Your task to perform on an android device: make emails show in primary in the gmail app Image 0: 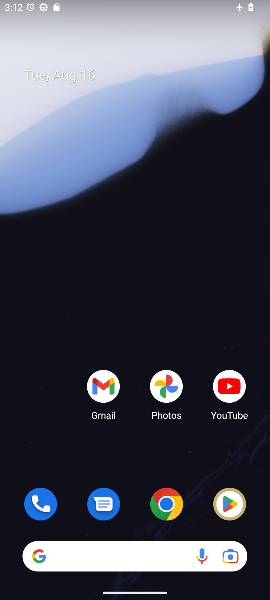
Step 0: click (101, 386)
Your task to perform on an android device: make emails show in primary in the gmail app Image 1: 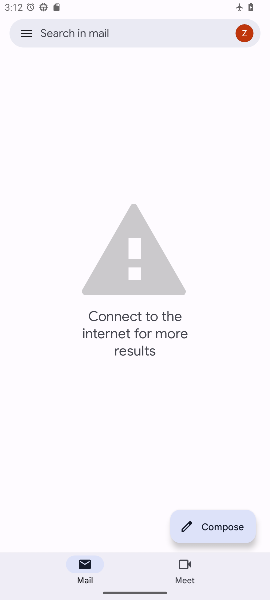
Step 1: click (23, 30)
Your task to perform on an android device: make emails show in primary in the gmail app Image 2: 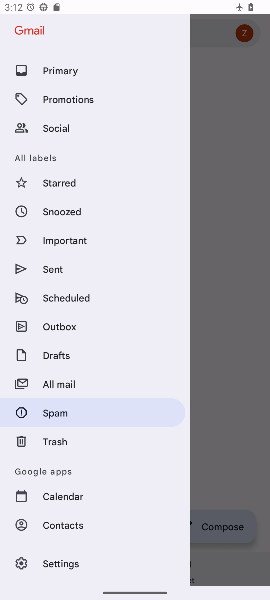
Step 2: click (57, 67)
Your task to perform on an android device: make emails show in primary in the gmail app Image 3: 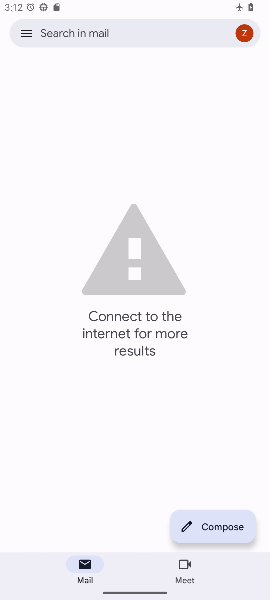
Step 3: task complete